Your task to perform on an android device: What's the weather going to be tomorrow? Image 0: 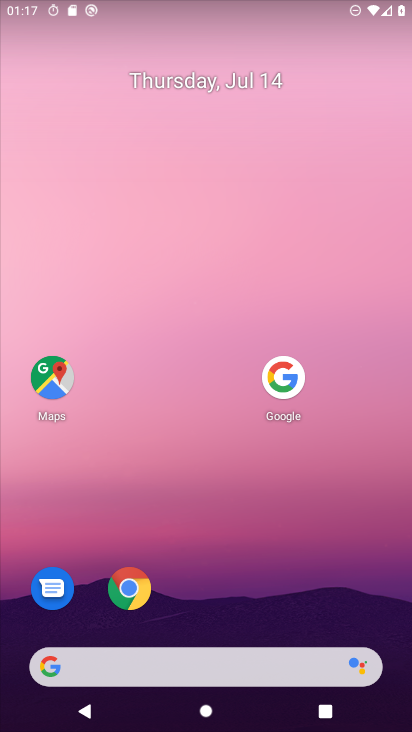
Step 0: click (129, 660)
Your task to perform on an android device: What's the weather going to be tomorrow? Image 1: 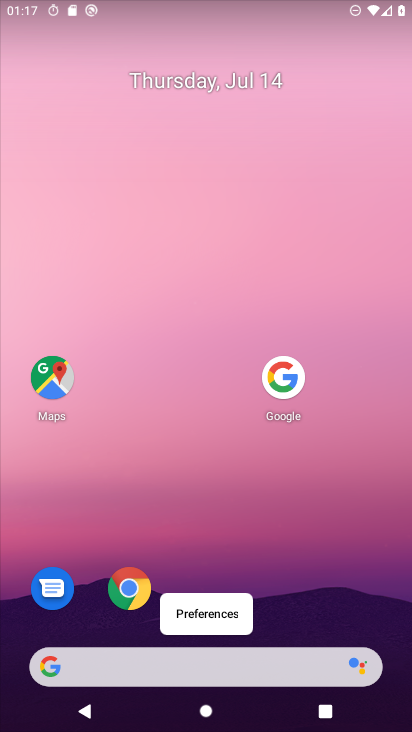
Step 1: click (120, 664)
Your task to perform on an android device: What's the weather going to be tomorrow? Image 2: 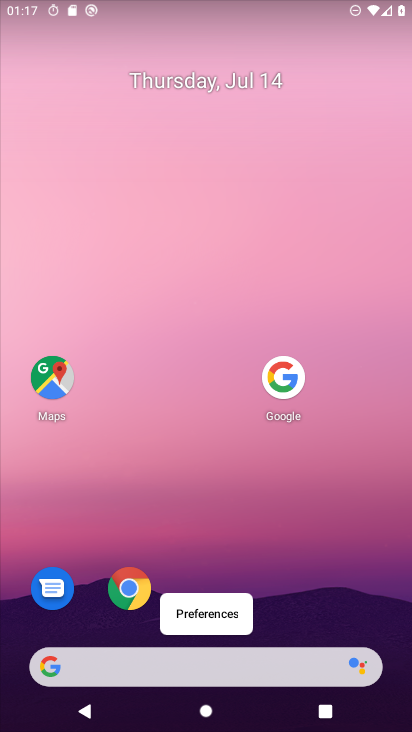
Step 2: click (149, 661)
Your task to perform on an android device: What's the weather going to be tomorrow? Image 3: 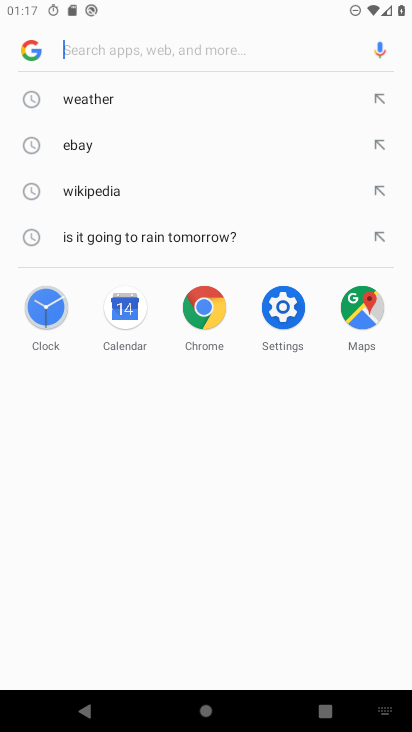
Step 3: click (105, 94)
Your task to perform on an android device: What's the weather going to be tomorrow? Image 4: 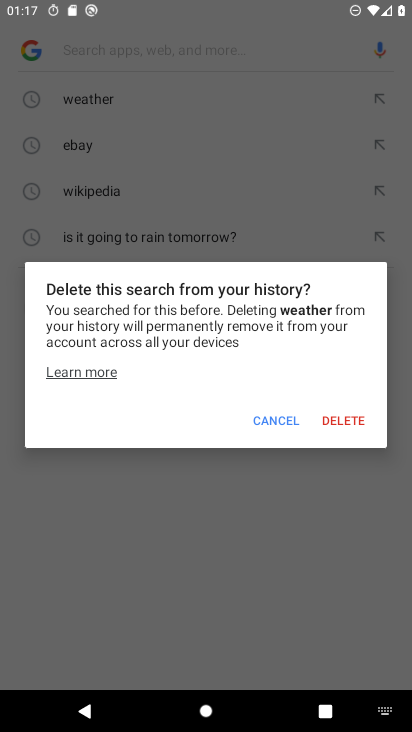
Step 4: click (279, 420)
Your task to perform on an android device: What's the weather going to be tomorrow? Image 5: 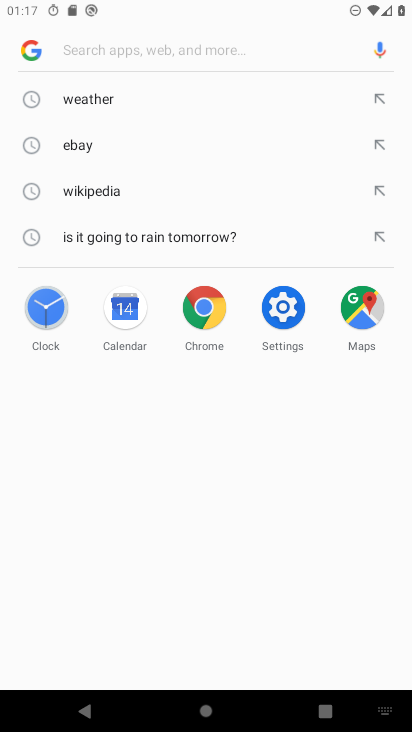
Step 5: click (88, 96)
Your task to perform on an android device: What's the weather going to be tomorrow? Image 6: 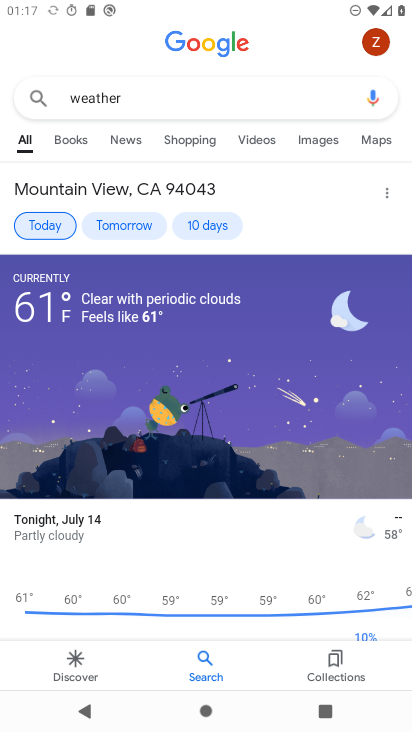
Step 6: click (143, 227)
Your task to perform on an android device: What's the weather going to be tomorrow? Image 7: 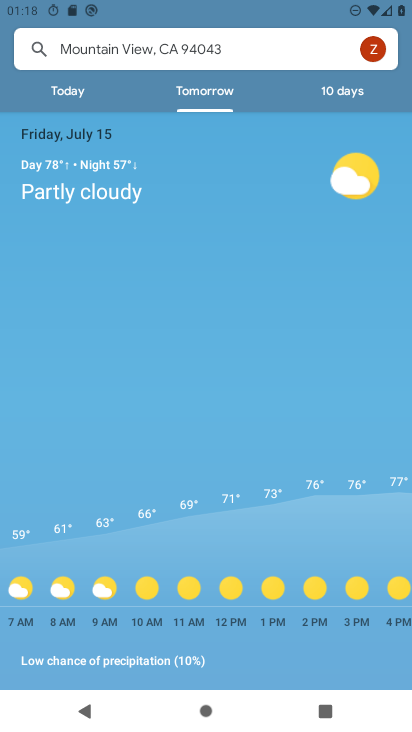
Step 7: task complete